Your task to perform on an android device: Go to notification settings Image 0: 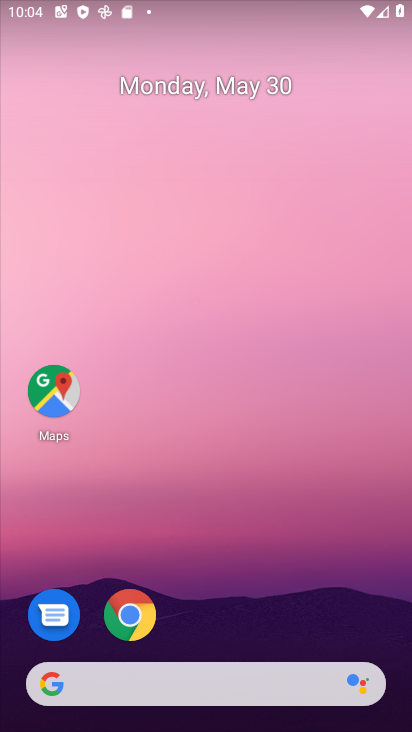
Step 0: drag from (268, 587) to (172, 27)
Your task to perform on an android device: Go to notification settings Image 1: 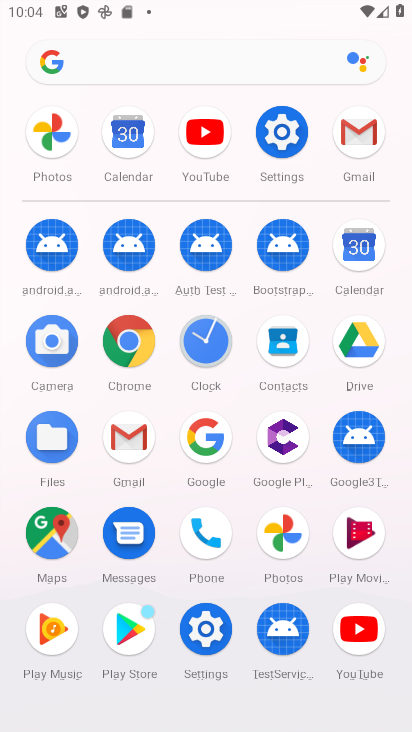
Step 1: click (286, 136)
Your task to perform on an android device: Go to notification settings Image 2: 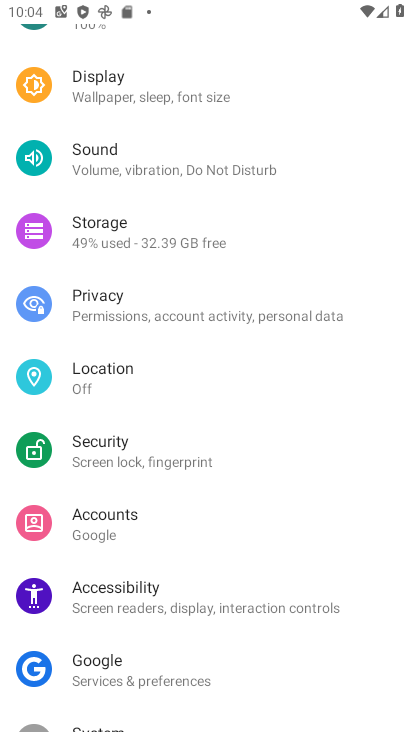
Step 2: drag from (171, 182) to (191, 626)
Your task to perform on an android device: Go to notification settings Image 3: 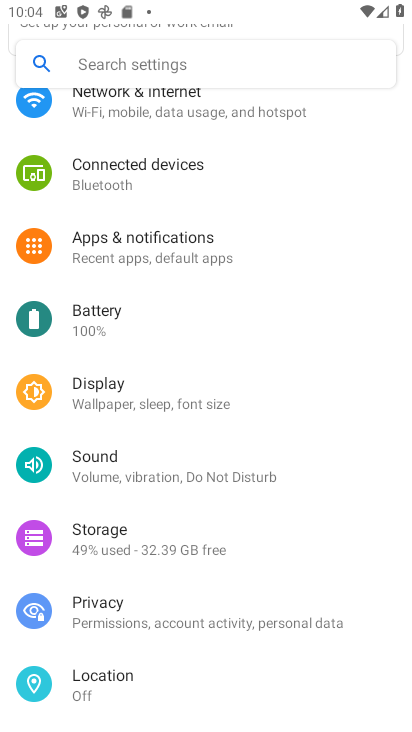
Step 3: click (128, 247)
Your task to perform on an android device: Go to notification settings Image 4: 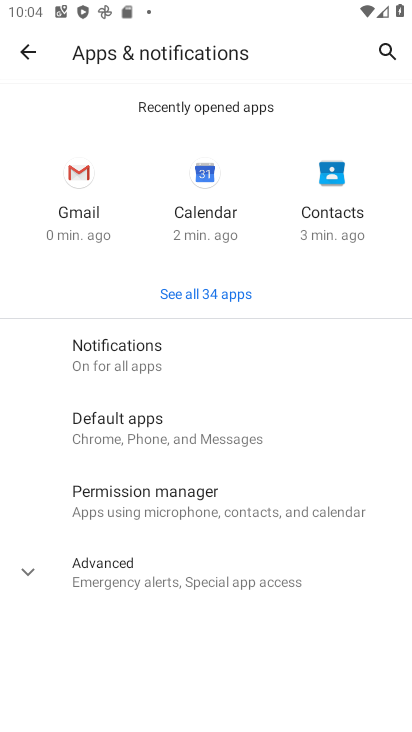
Step 4: task complete